Your task to perform on an android device: turn notification dots off Image 0: 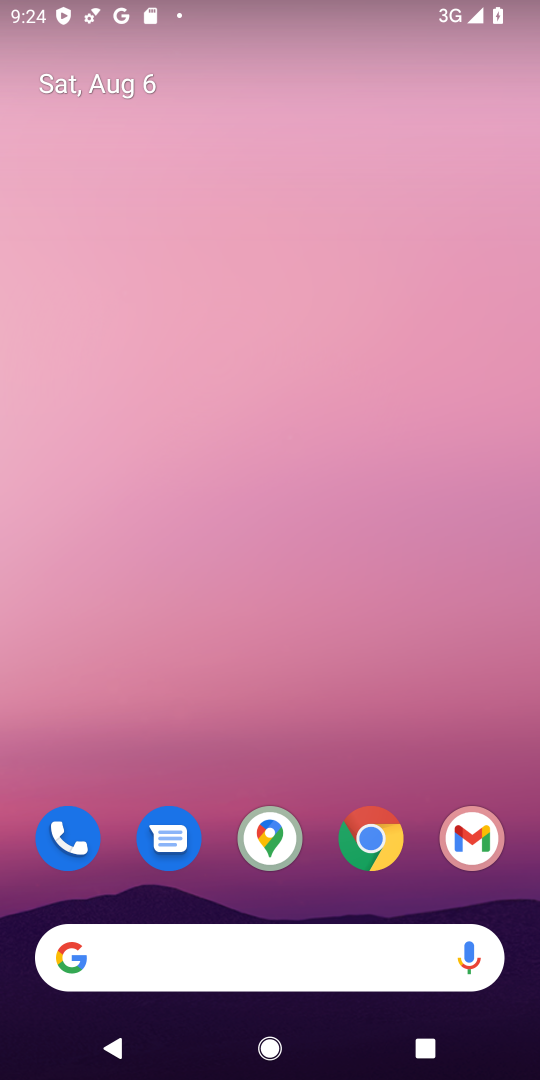
Step 0: drag from (449, 747) to (321, 304)
Your task to perform on an android device: turn notification dots off Image 1: 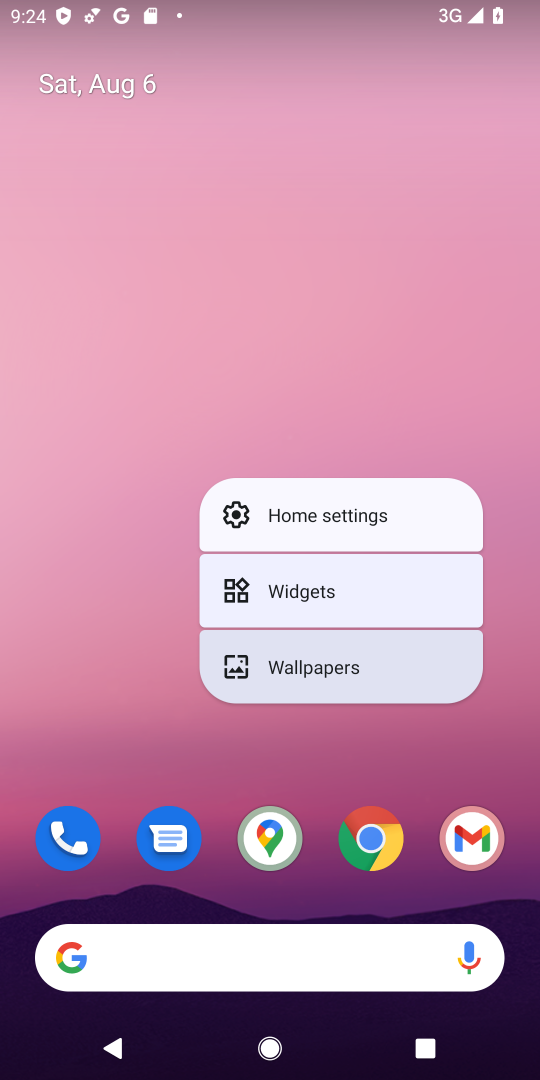
Step 1: click (464, 204)
Your task to perform on an android device: turn notification dots off Image 2: 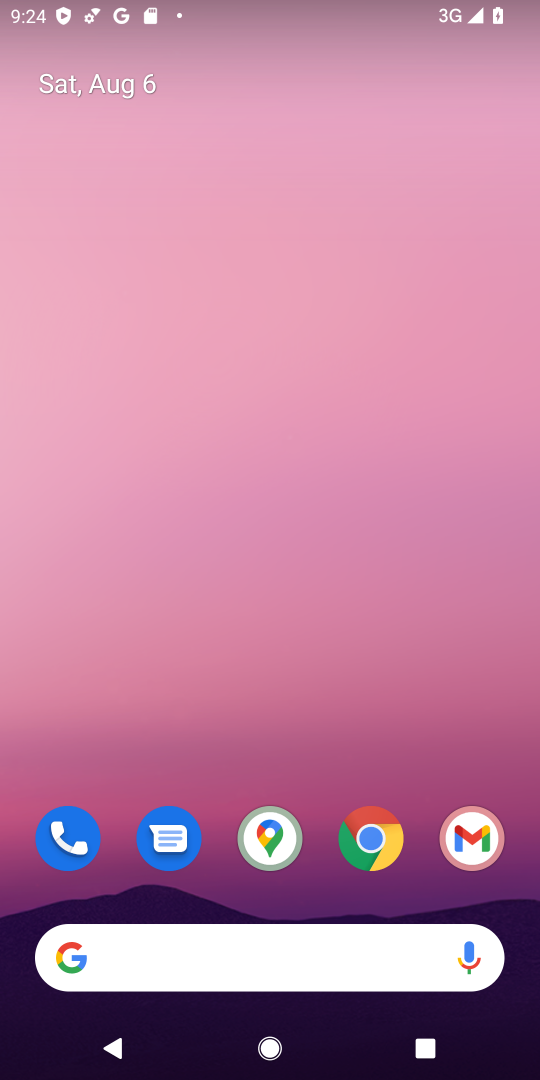
Step 2: drag from (509, 729) to (369, 309)
Your task to perform on an android device: turn notification dots off Image 3: 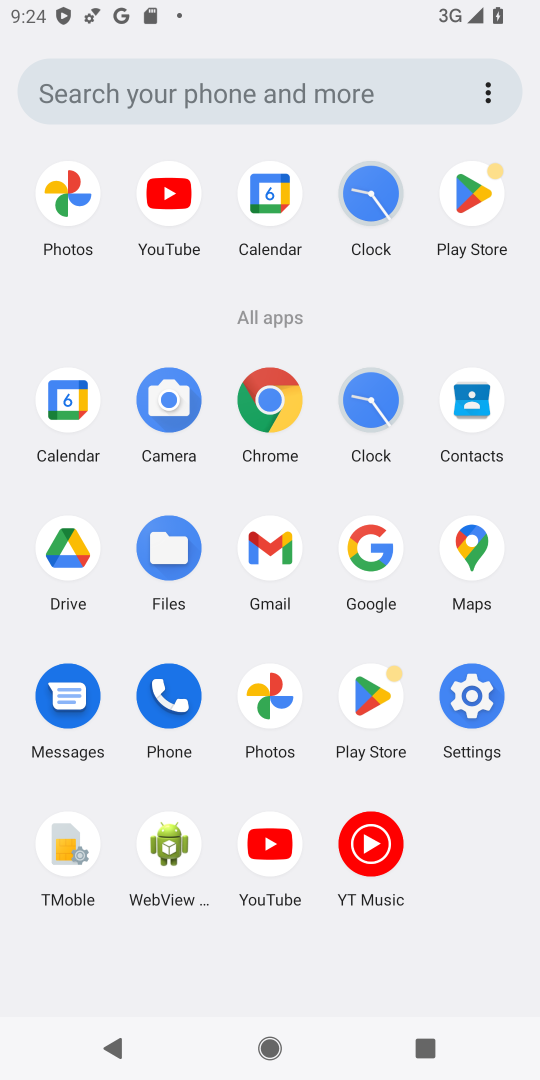
Step 3: click (480, 724)
Your task to perform on an android device: turn notification dots off Image 4: 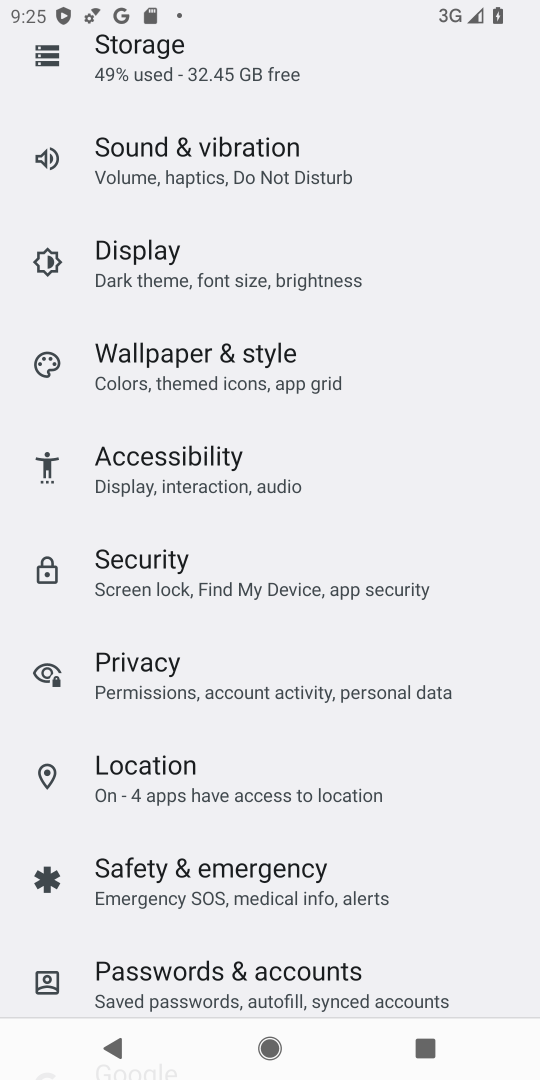
Step 4: drag from (367, 309) to (340, 1050)
Your task to perform on an android device: turn notification dots off Image 5: 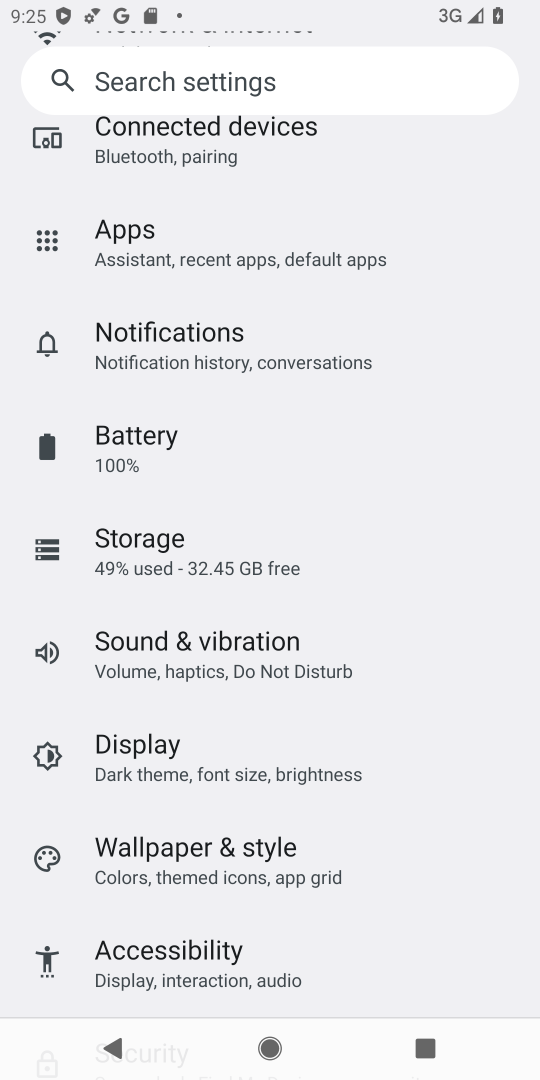
Step 5: drag from (330, 433) to (321, 878)
Your task to perform on an android device: turn notification dots off Image 6: 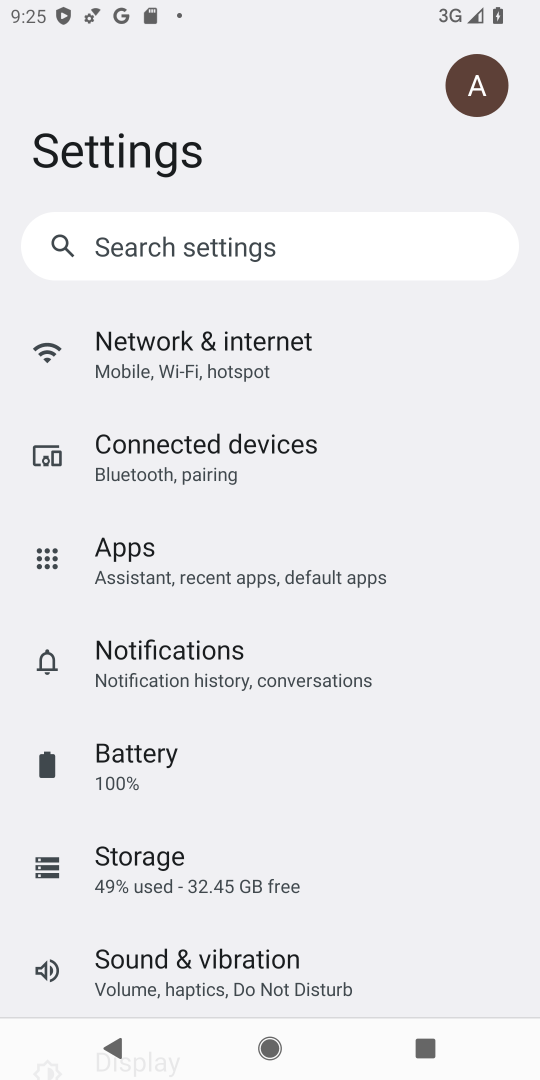
Step 6: click (315, 654)
Your task to perform on an android device: turn notification dots off Image 7: 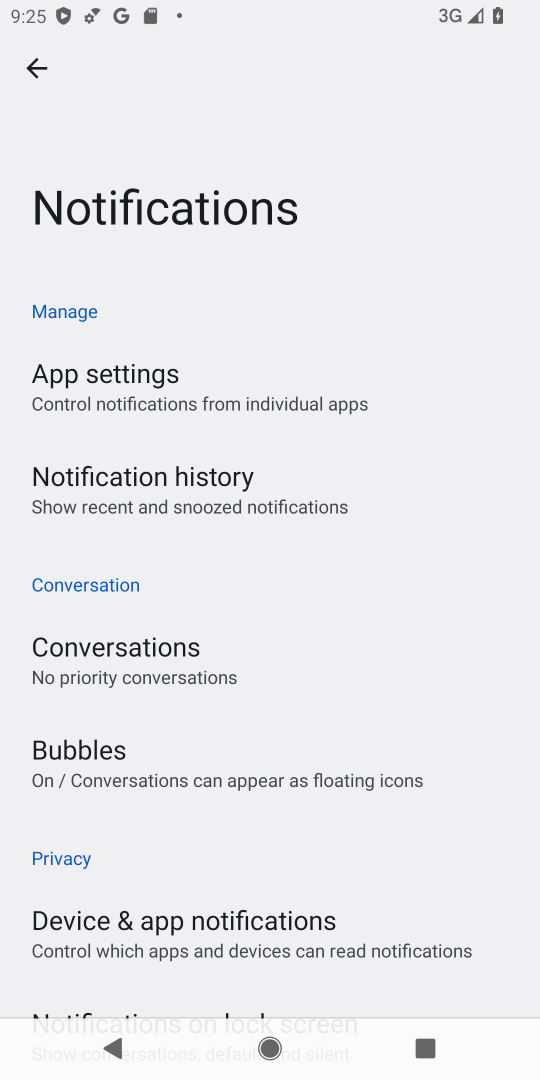
Step 7: drag from (257, 863) to (204, 442)
Your task to perform on an android device: turn notification dots off Image 8: 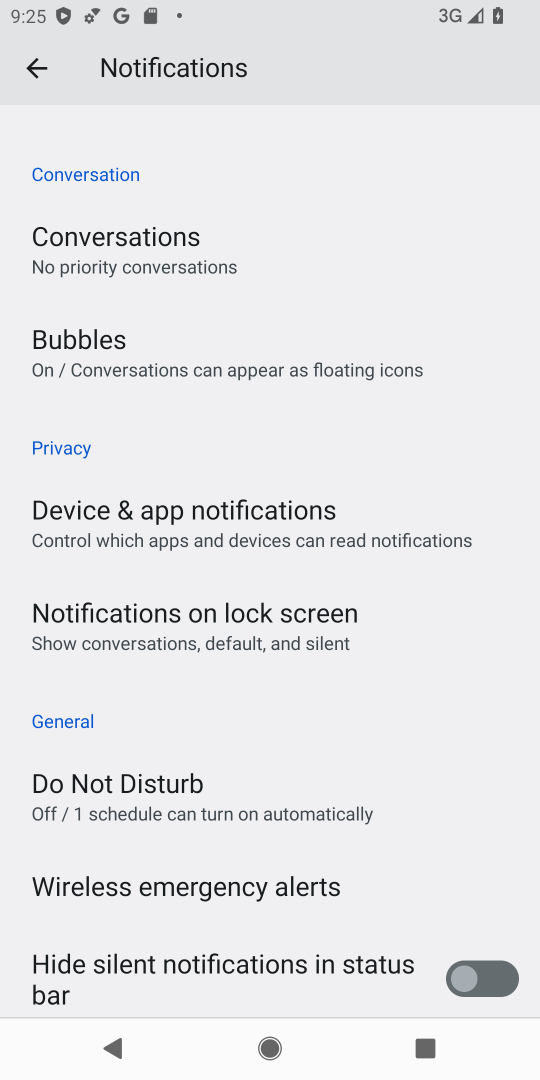
Step 8: drag from (363, 874) to (316, 458)
Your task to perform on an android device: turn notification dots off Image 9: 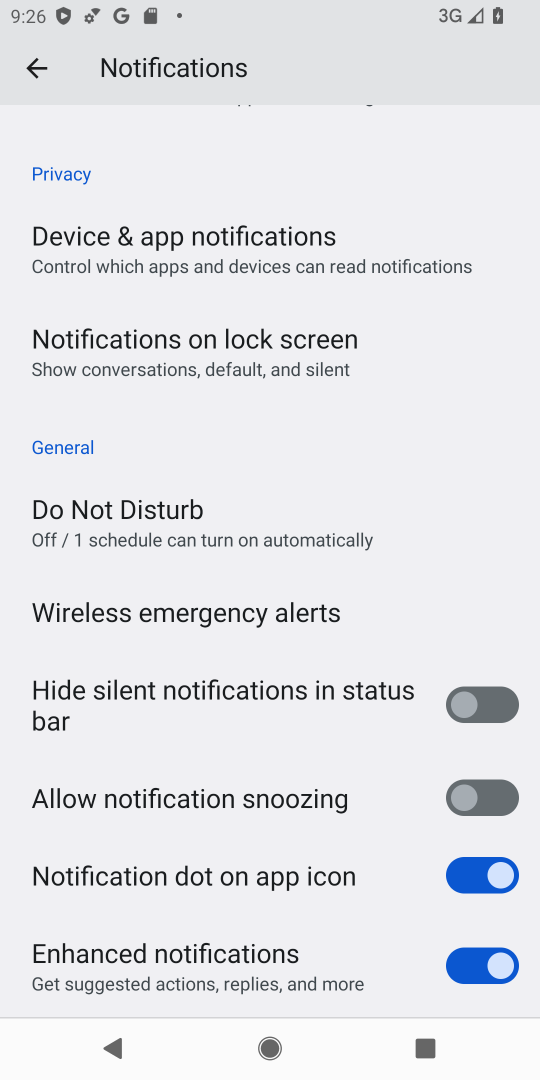
Step 9: click (473, 885)
Your task to perform on an android device: turn notification dots off Image 10: 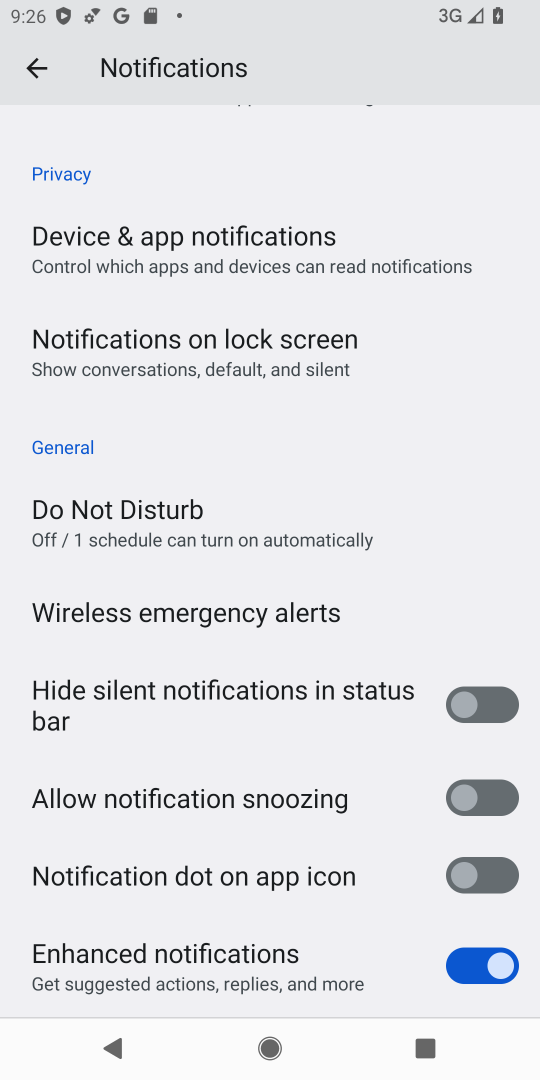
Step 10: task complete